Your task to perform on an android device: Search for vegetarian restaurants on Maps Image 0: 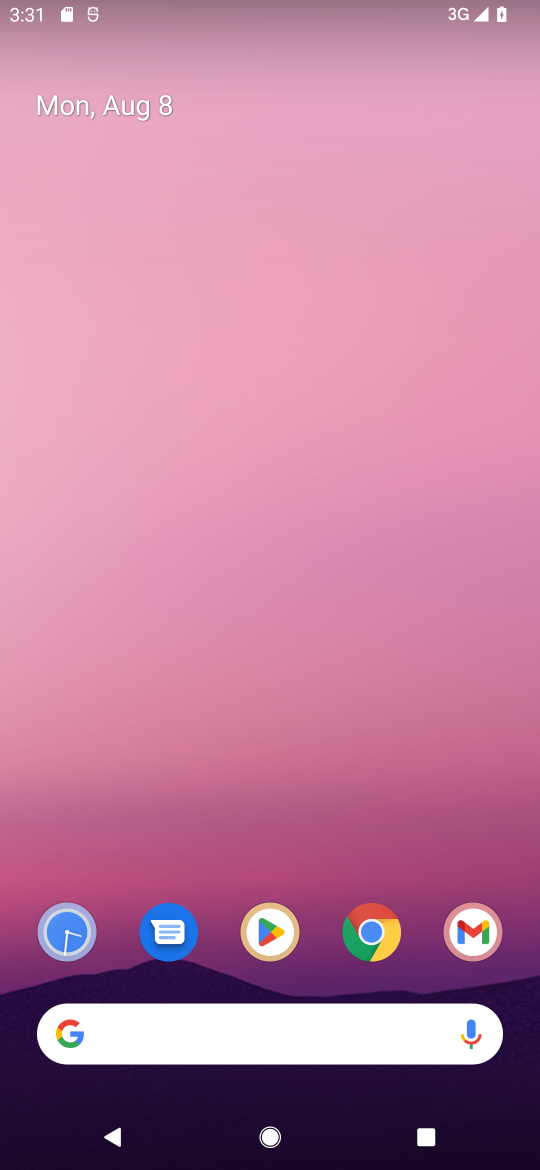
Step 0: drag from (359, 1078) to (106, 0)
Your task to perform on an android device: Search for vegetarian restaurants on Maps Image 1: 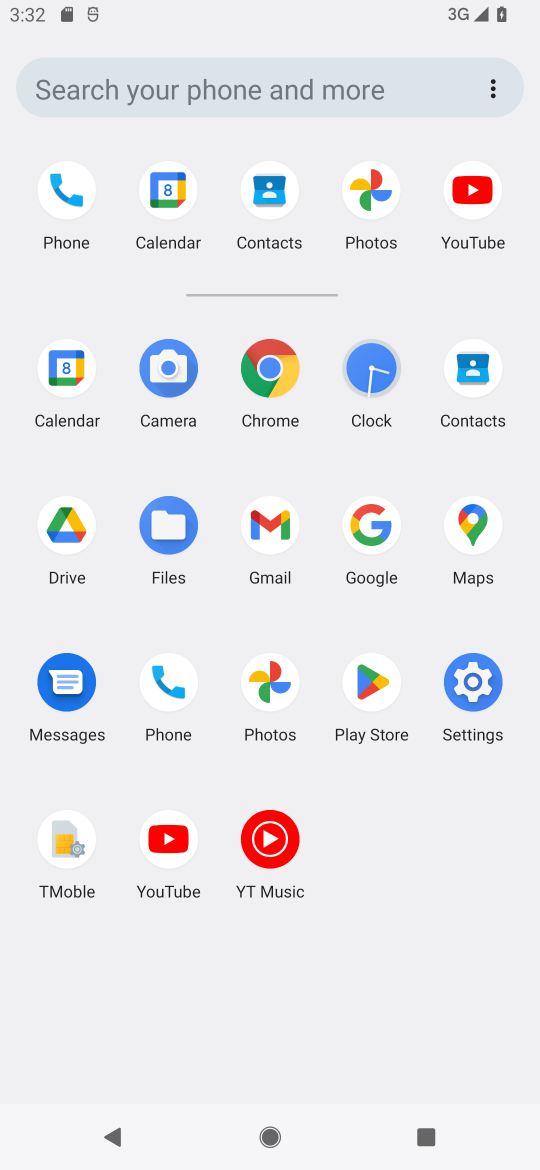
Step 1: click (483, 545)
Your task to perform on an android device: Search for vegetarian restaurants on Maps Image 2: 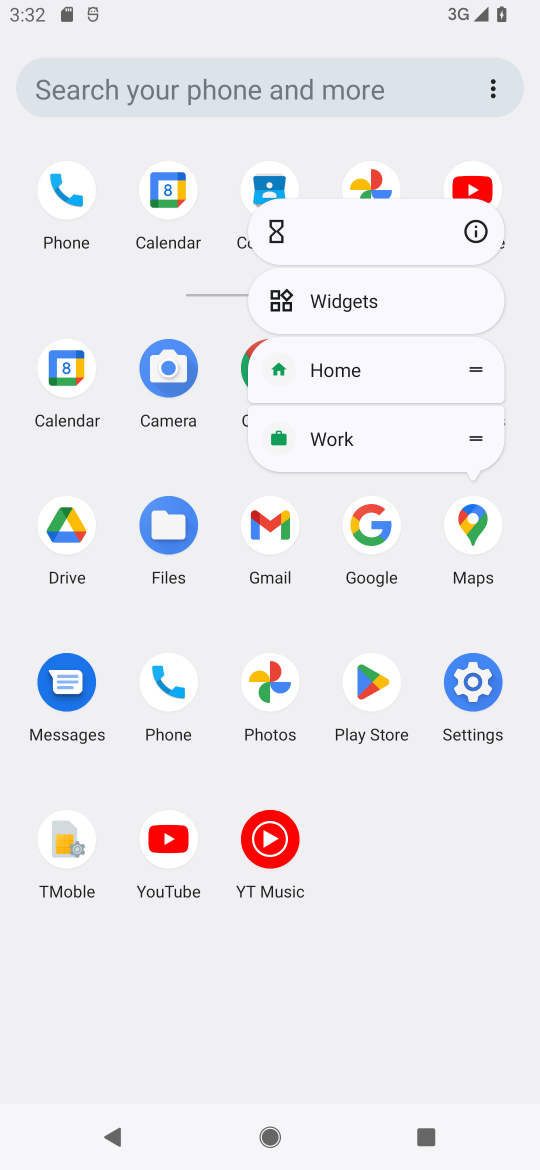
Step 2: click (484, 546)
Your task to perform on an android device: Search for vegetarian restaurants on Maps Image 3: 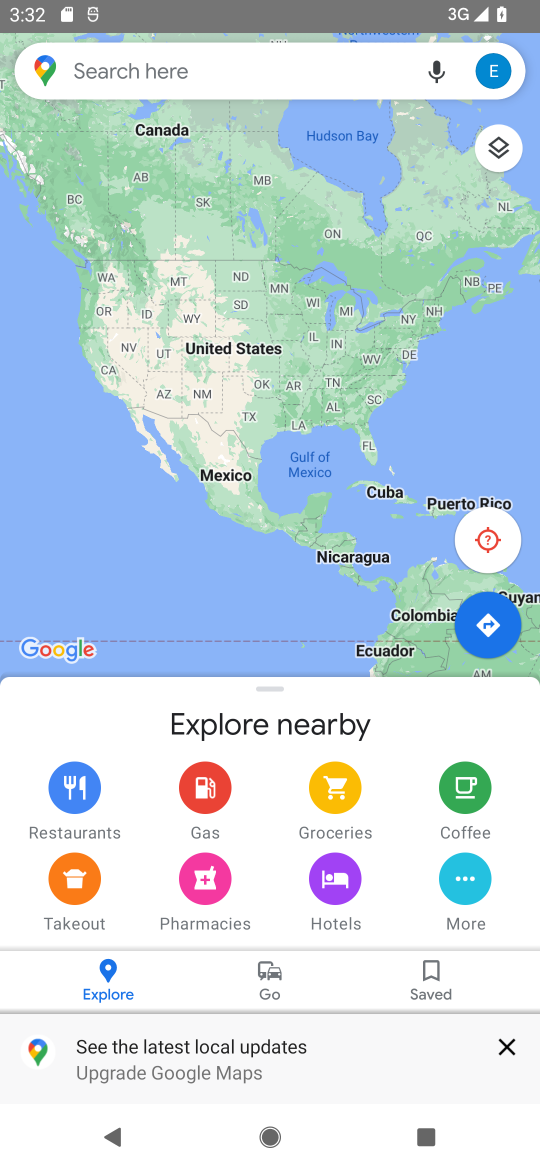
Step 3: click (209, 91)
Your task to perform on an android device: Search for vegetarian restaurants on Maps Image 4: 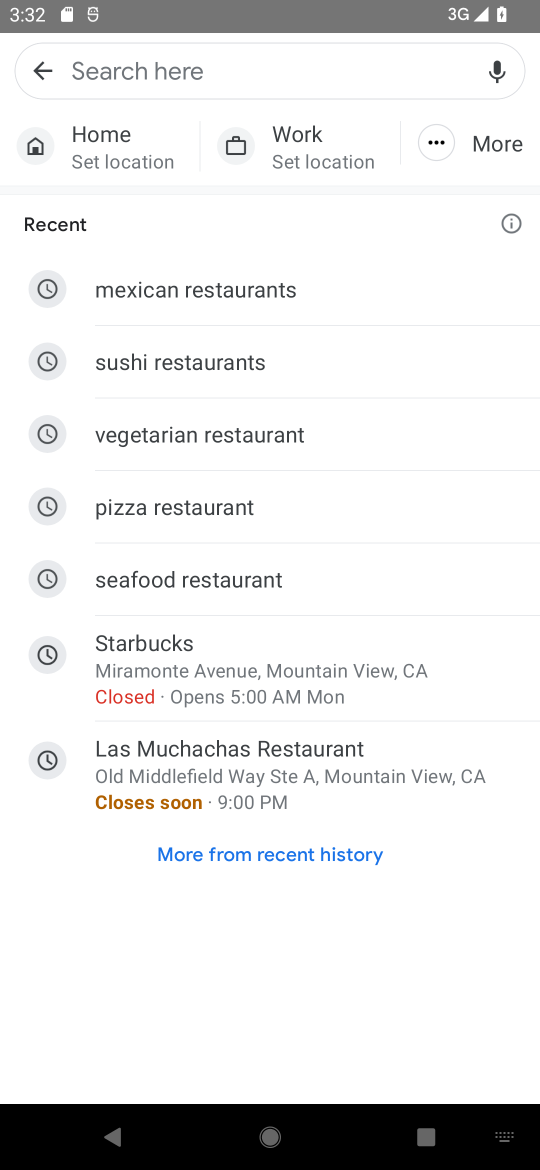
Step 4: click (223, 435)
Your task to perform on an android device: Search for vegetarian restaurants on Maps Image 5: 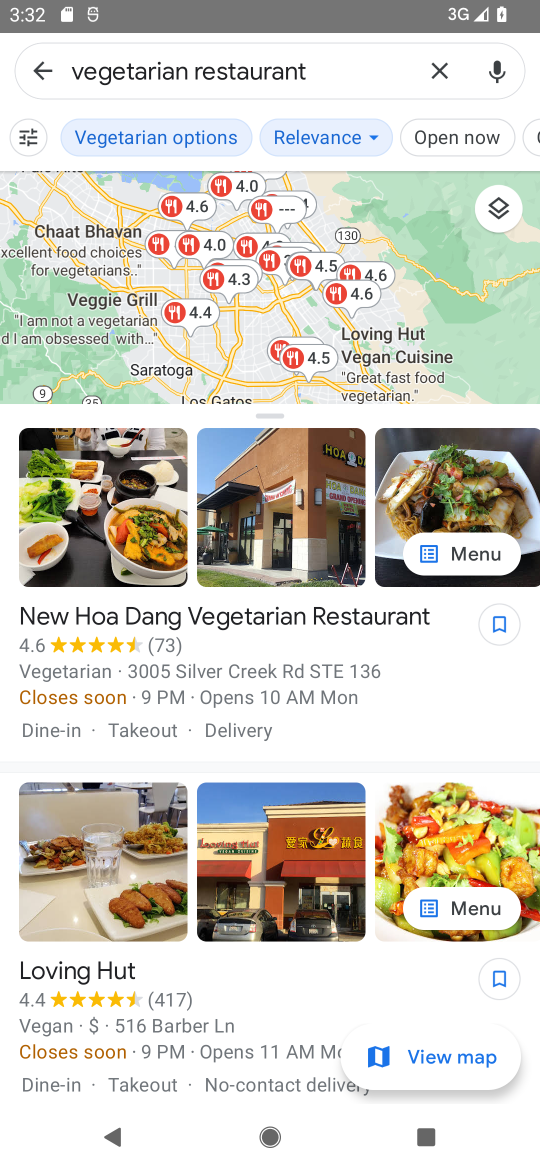
Step 5: task complete